Your task to perform on an android device: Add usb-c to usb-b to the cart on costco.com, then select checkout. Image 0: 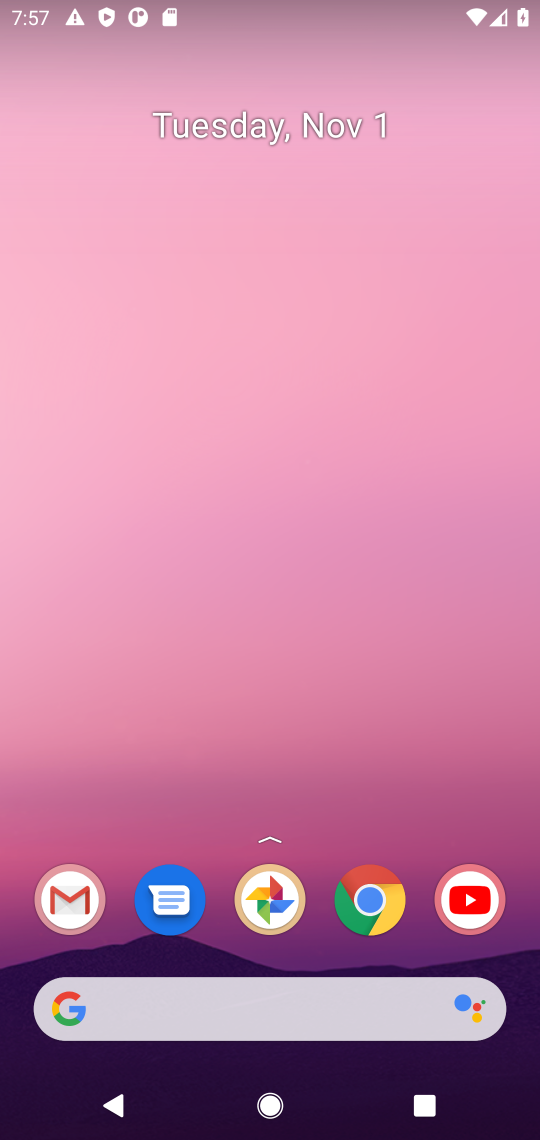
Step 0: drag from (320, 958) to (413, 199)
Your task to perform on an android device: Add usb-c to usb-b to the cart on costco.com, then select checkout. Image 1: 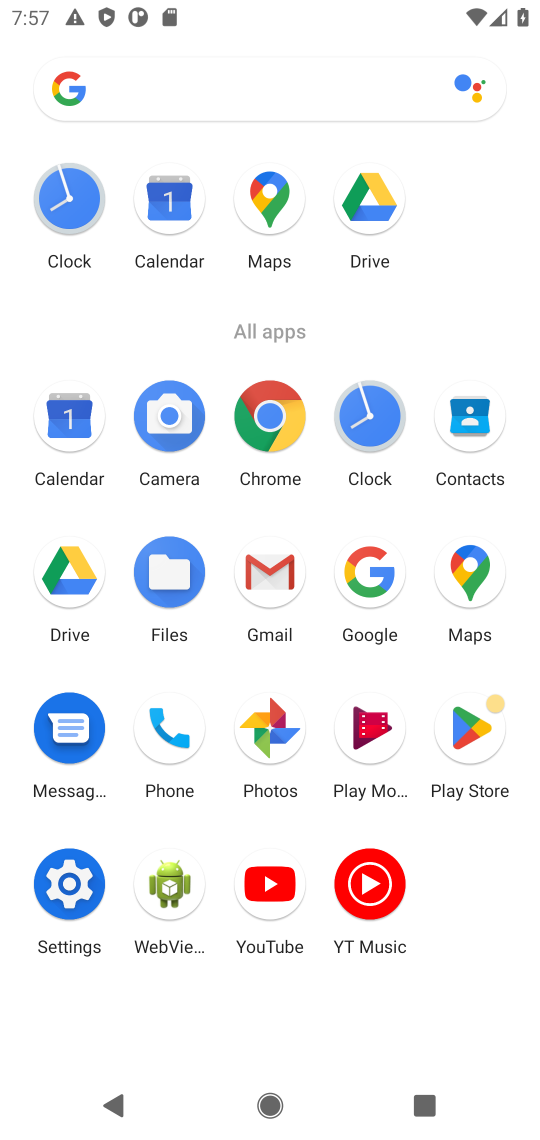
Step 1: click (268, 417)
Your task to perform on an android device: Add usb-c to usb-b to the cart on costco.com, then select checkout. Image 2: 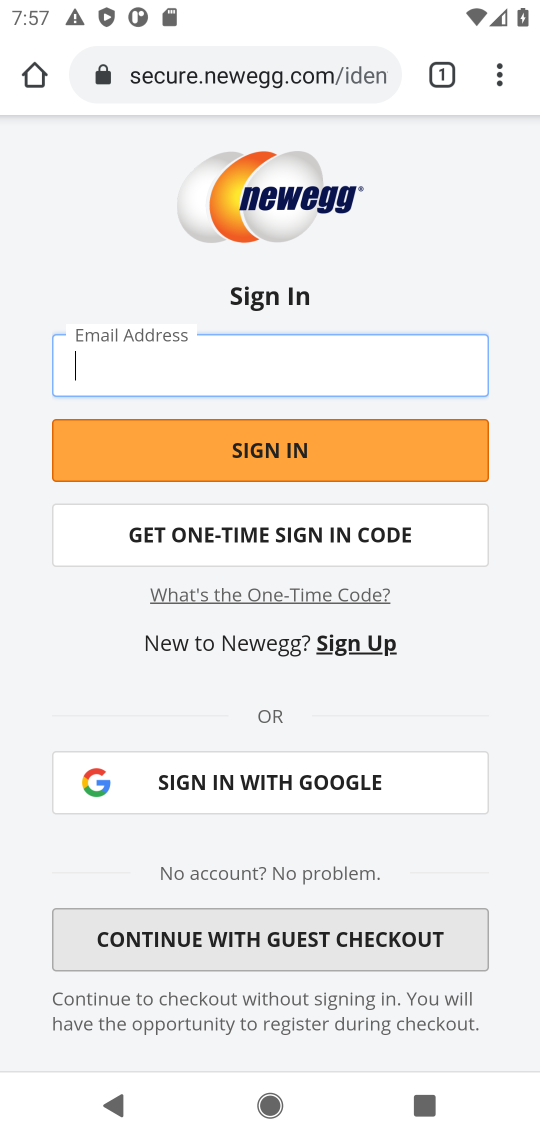
Step 2: click (246, 77)
Your task to perform on an android device: Add usb-c to usb-b to the cart on costco.com, then select checkout. Image 3: 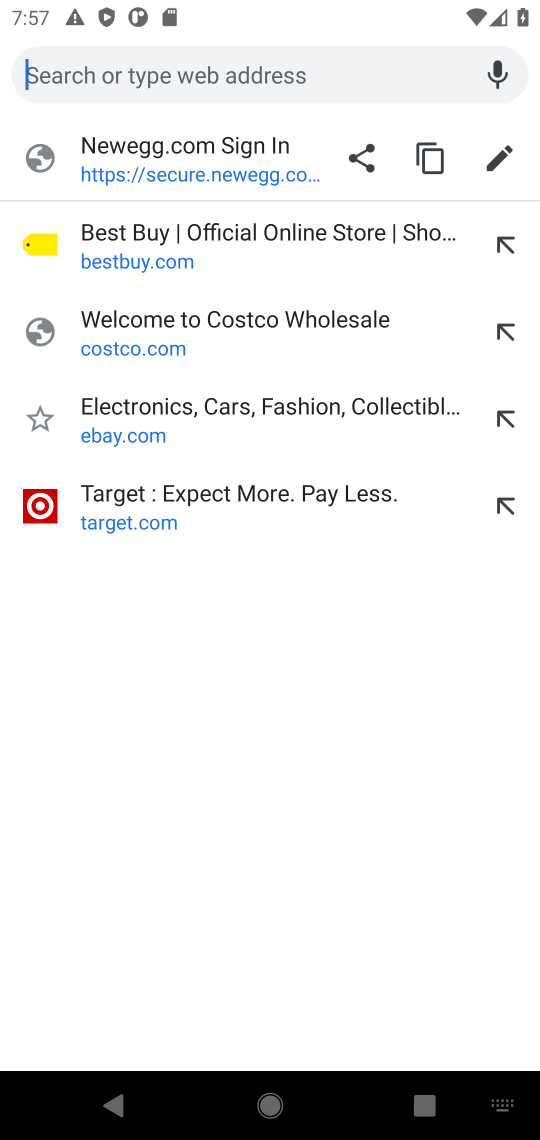
Step 3: type "costco.com"
Your task to perform on an android device: Add usb-c to usb-b to the cart on costco.com, then select checkout. Image 4: 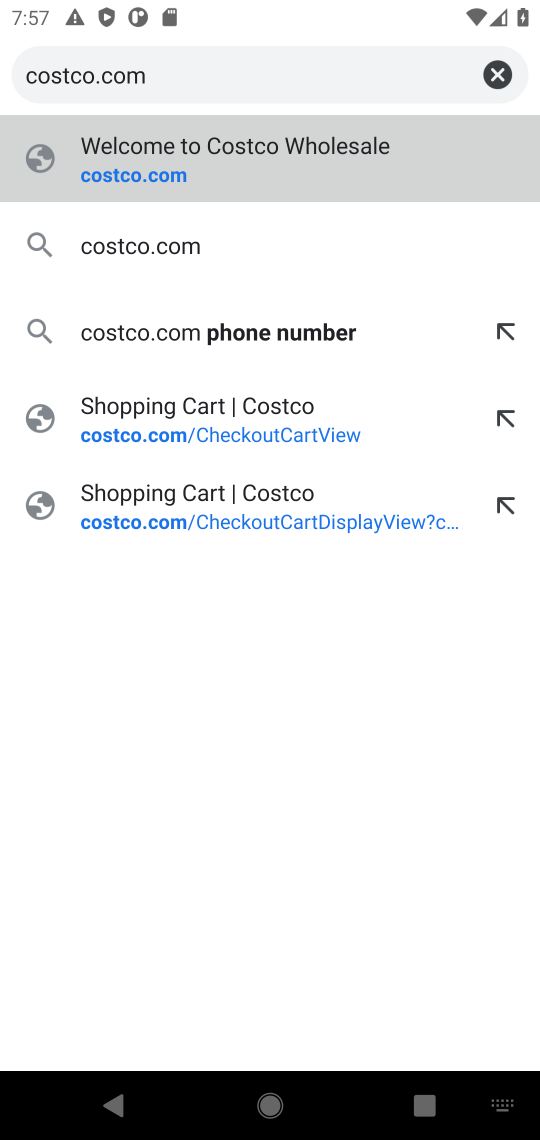
Step 4: press enter
Your task to perform on an android device: Add usb-c to usb-b to the cart on costco.com, then select checkout. Image 5: 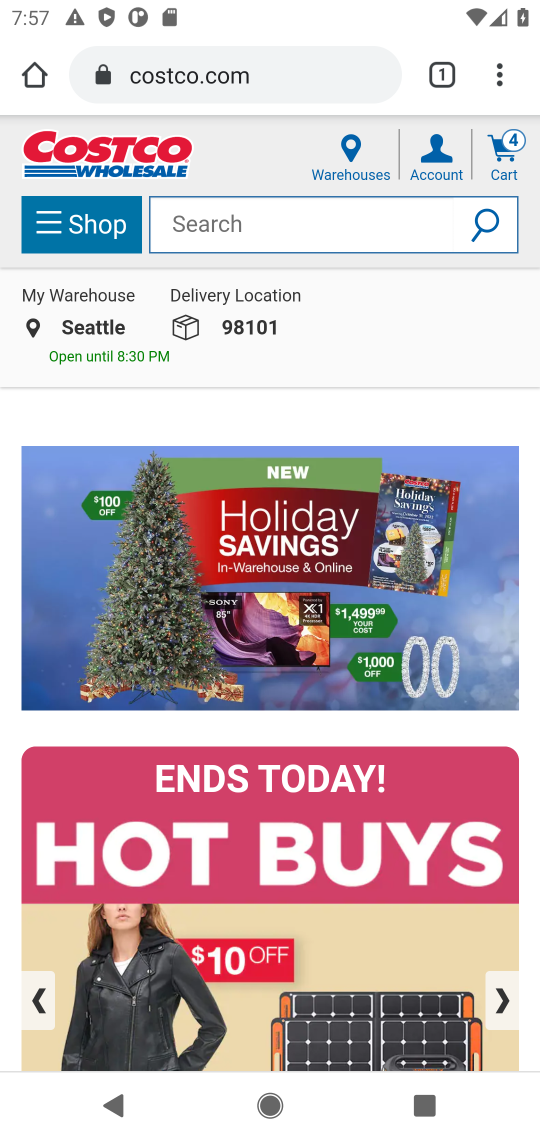
Step 5: click (230, 233)
Your task to perform on an android device: Add usb-c to usb-b to the cart on costco.com, then select checkout. Image 6: 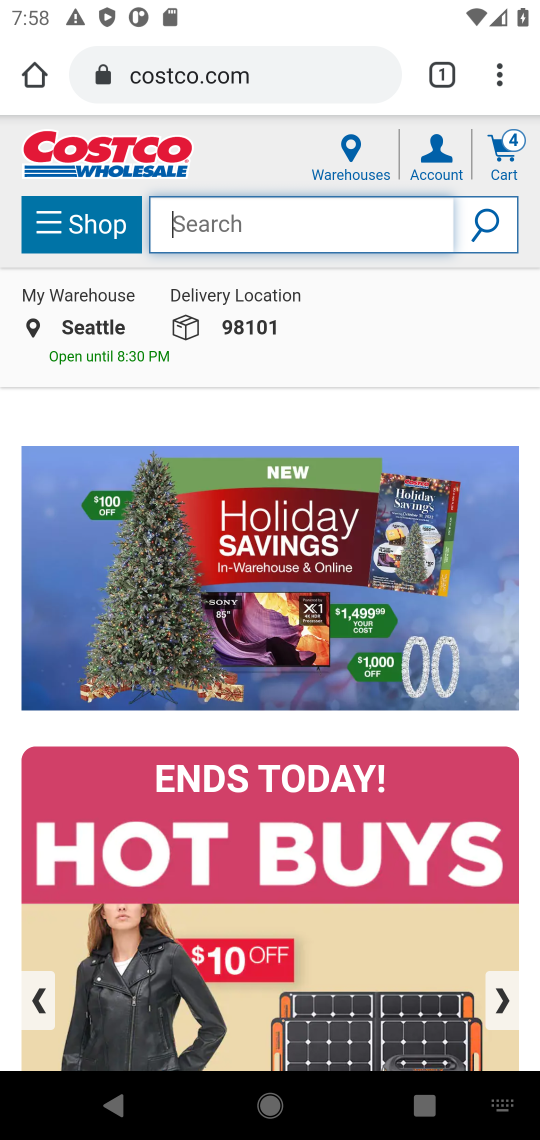
Step 6: type "usb-c to usb-b"
Your task to perform on an android device: Add usb-c to usb-b to the cart on costco.com, then select checkout. Image 7: 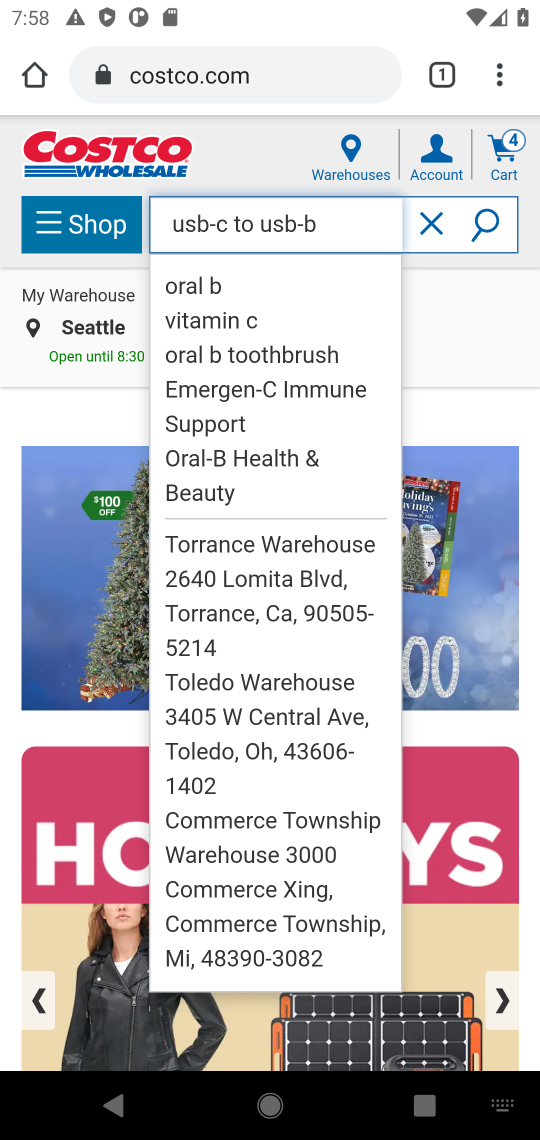
Step 7: press enter
Your task to perform on an android device: Add usb-c to usb-b to the cart on costco.com, then select checkout. Image 8: 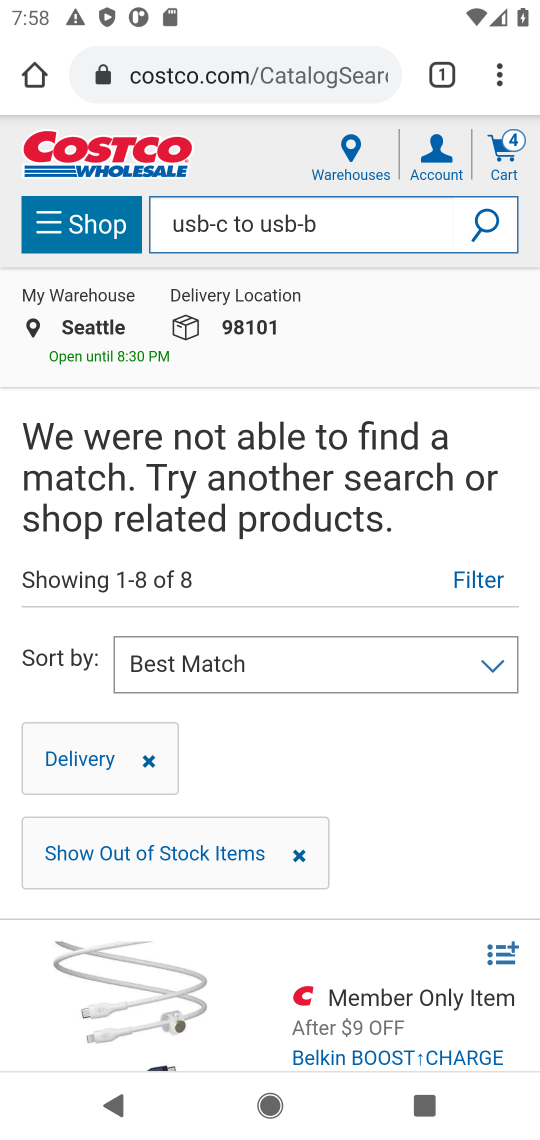
Step 8: task complete